Your task to perform on an android device: Play the last video I watched on Youtube Image 0: 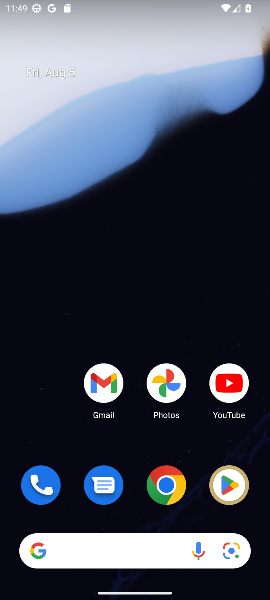
Step 0: click (230, 384)
Your task to perform on an android device: Play the last video I watched on Youtube Image 1: 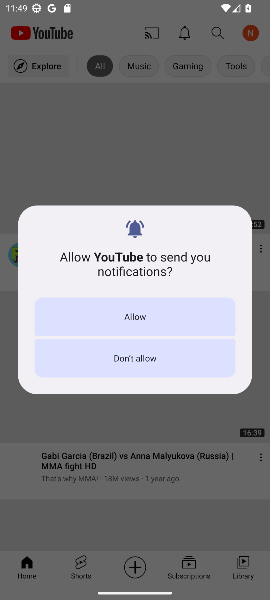
Step 1: click (156, 319)
Your task to perform on an android device: Play the last video I watched on Youtube Image 2: 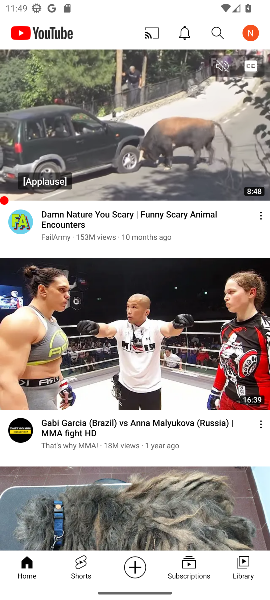
Step 2: click (246, 559)
Your task to perform on an android device: Play the last video I watched on Youtube Image 3: 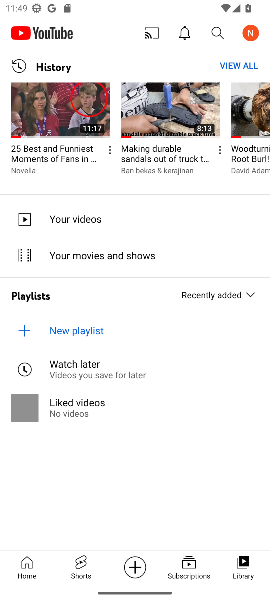
Step 3: click (63, 90)
Your task to perform on an android device: Play the last video I watched on Youtube Image 4: 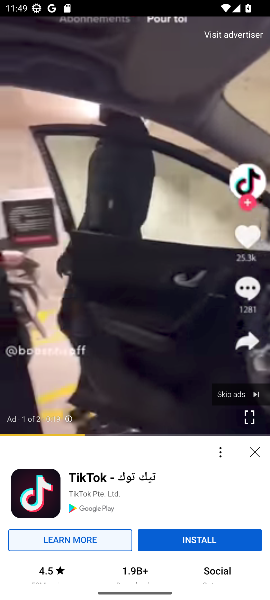
Step 4: task complete